Your task to perform on an android device: toggle priority inbox in the gmail app Image 0: 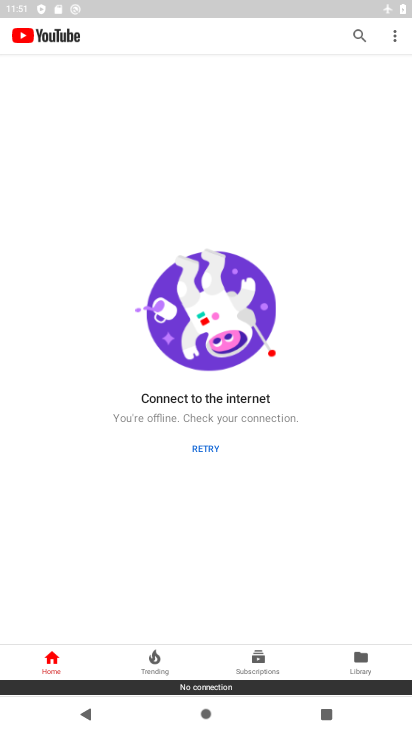
Step 0: press home button
Your task to perform on an android device: toggle priority inbox in the gmail app Image 1: 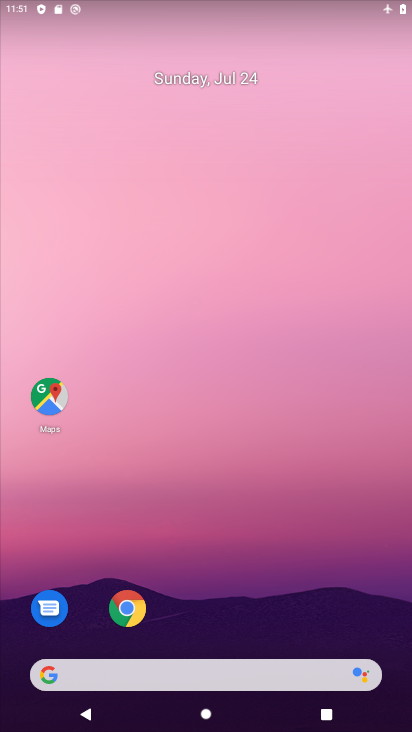
Step 1: drag from (210, 618) to (208, 160)
Your task to perform on an android device: toggle priority inbox in the gmail app Image 2: 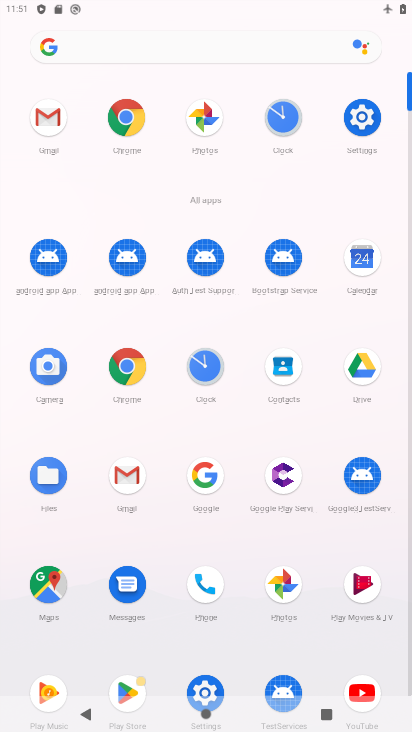
Step 2: click (67, 117)
Your task to perform on an android device: toggle priority inbox in the gmail app Image 3: 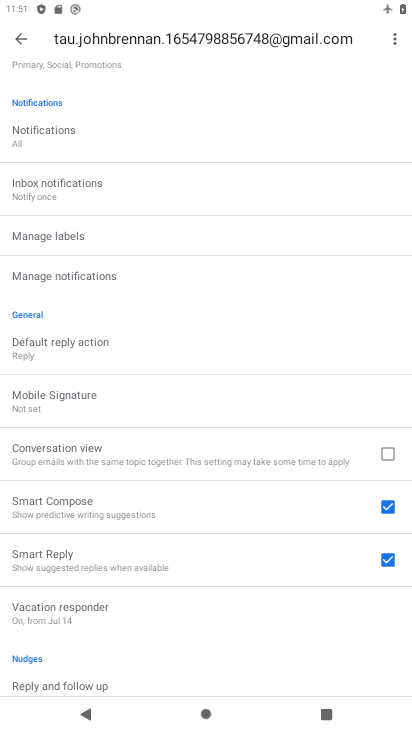
Step 3: drag from (107, 247) to (107, 588)
Your task to perform on an android device: toggle priority inbox in the gmail app Image 4: 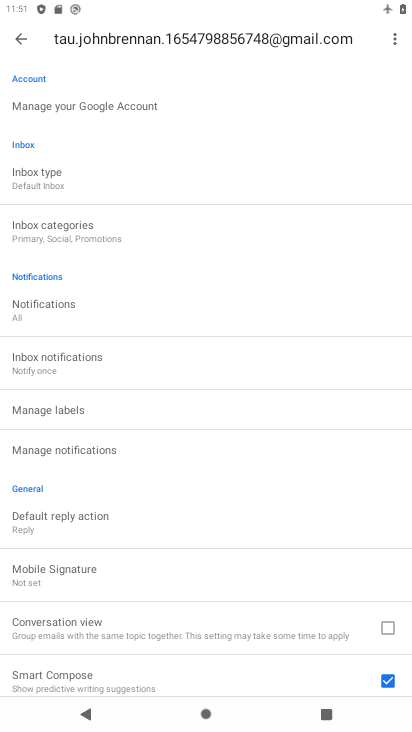
Step 4: click (58, 194)
Your task to perform on an android device: toggle priority inbox in the gmail app Image 5: 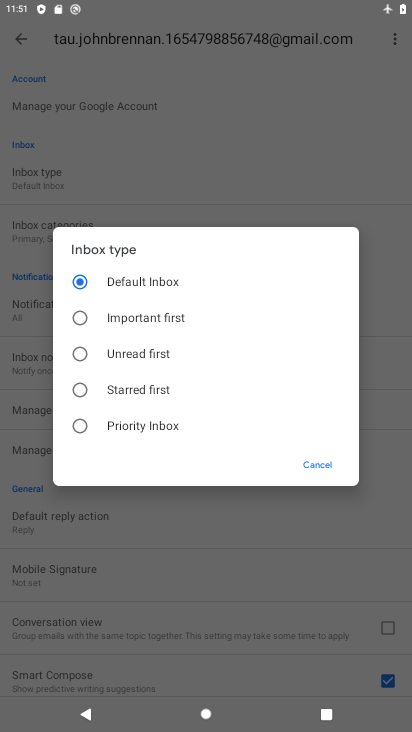
Step 5: click (137, 436)
Your task to perform on an android device: toggle priority inbox in the gmail app Image 6: 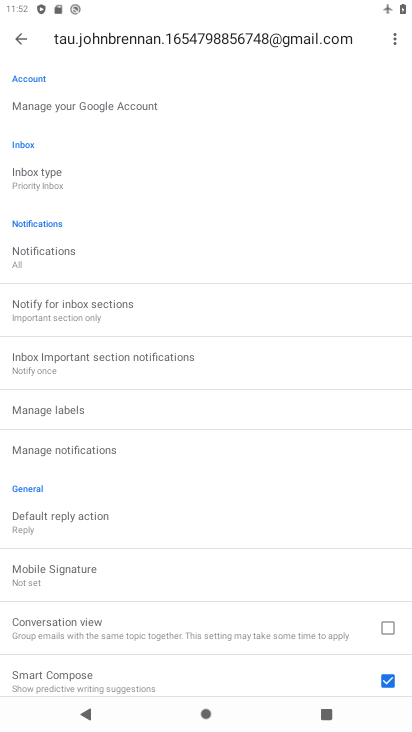
Step 6: task complete